Your task to perform on an android device: toggle location history Image 0: 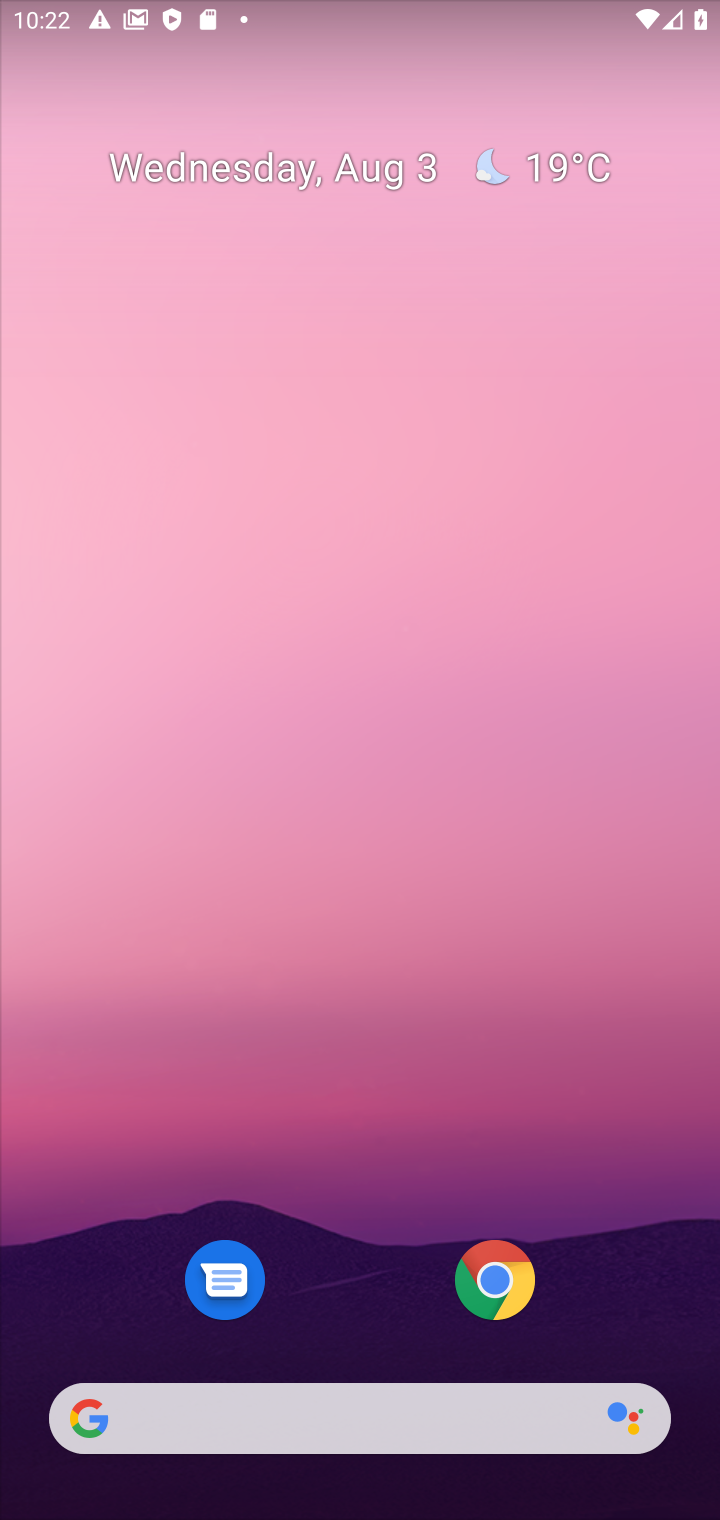
Step 0: drag from (442, 1197) to (424, 590)
Your task to perform on an android device: toggle location history Image 1: 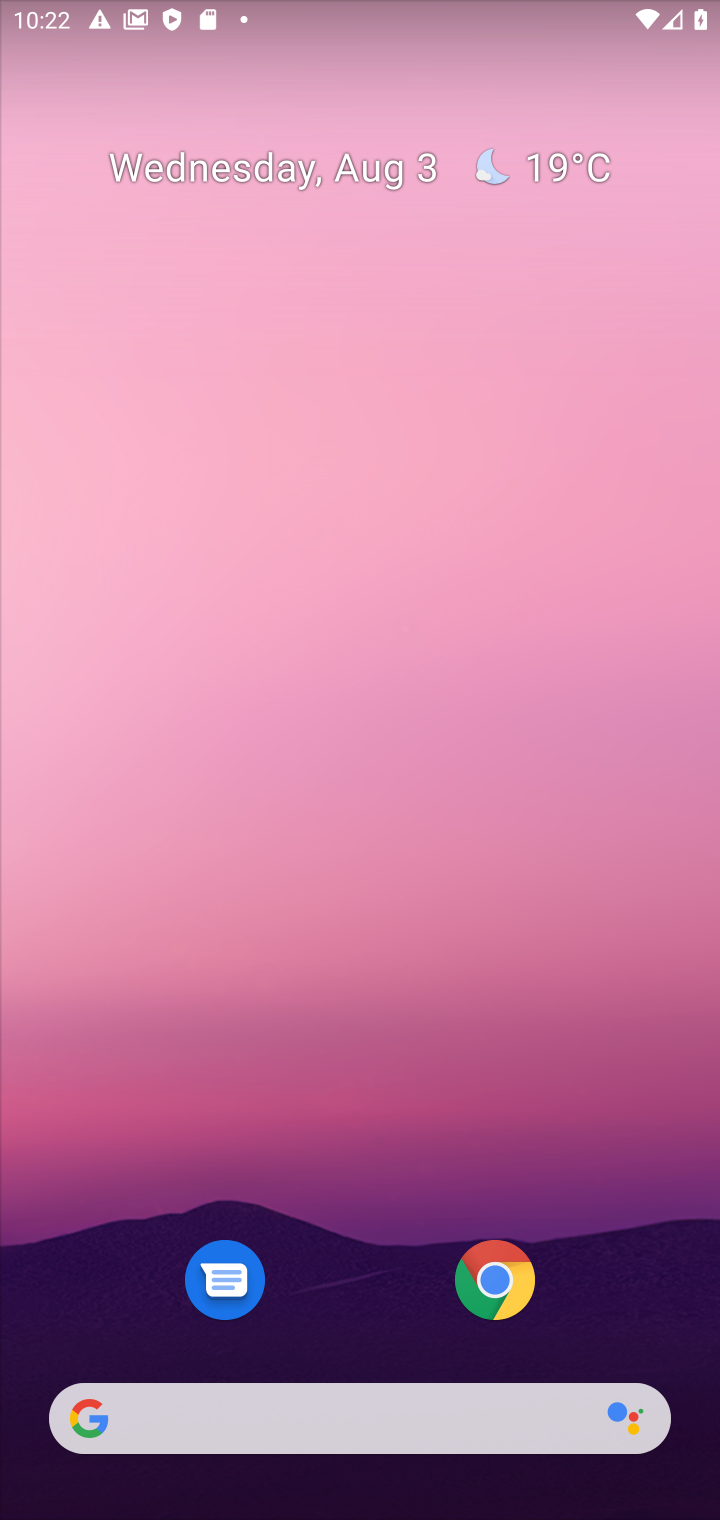
Step 1: drag from (382, 1214) to (309, 119)
Your task to perform on an android device: toggle location history Image 2: 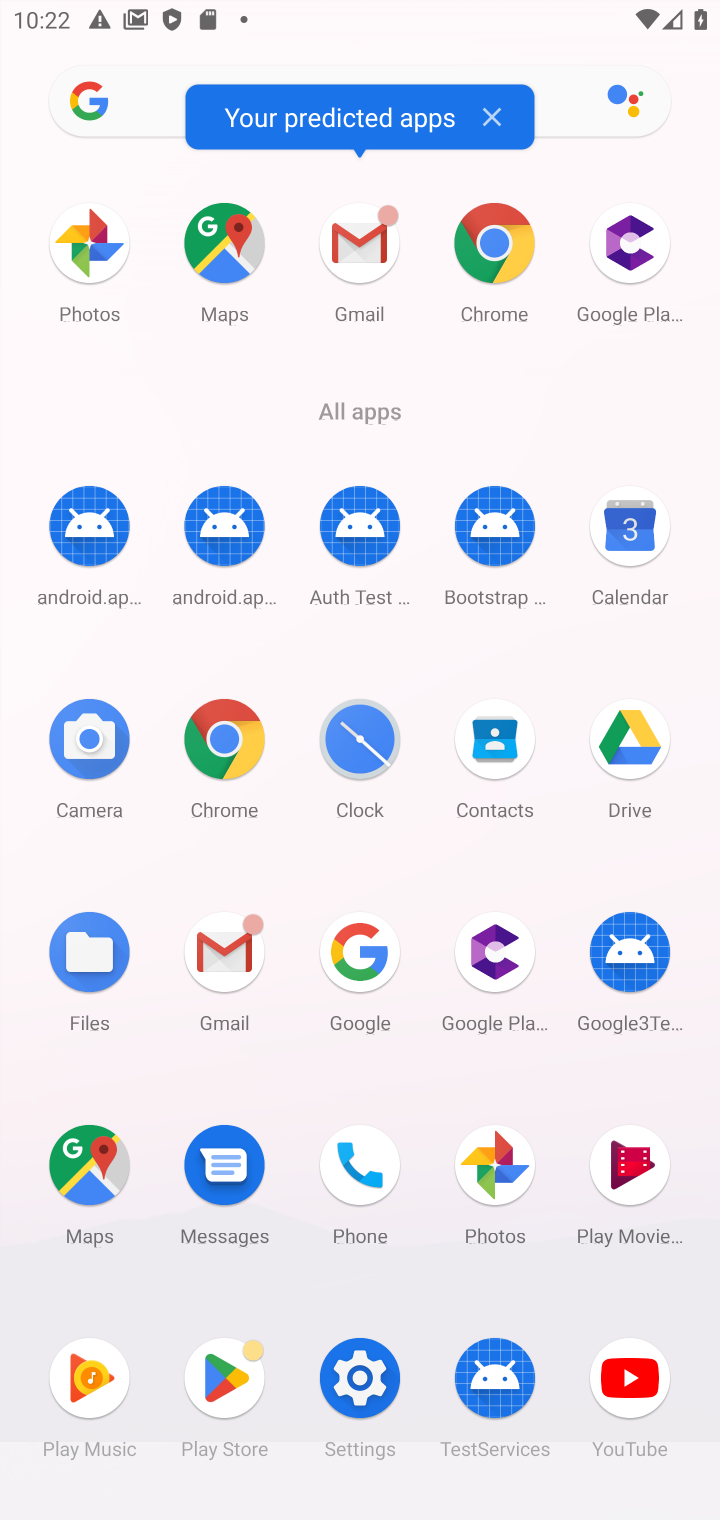
Step 2: click (371, 1365)
Your task to perform on an android device: toggle location history Image 3: 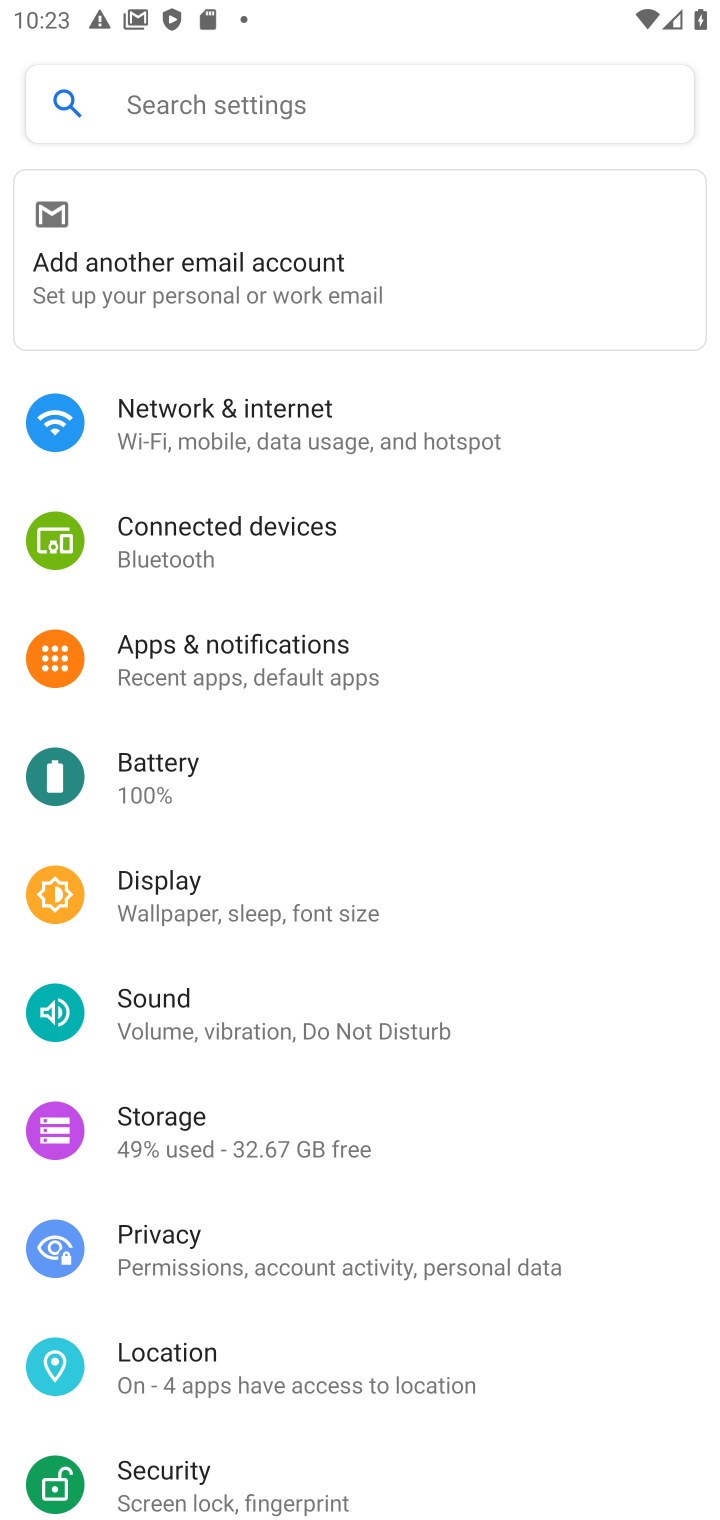
Step 3: click (184, 1356)
Your task to perform on an android device: toggle location history Image 4: 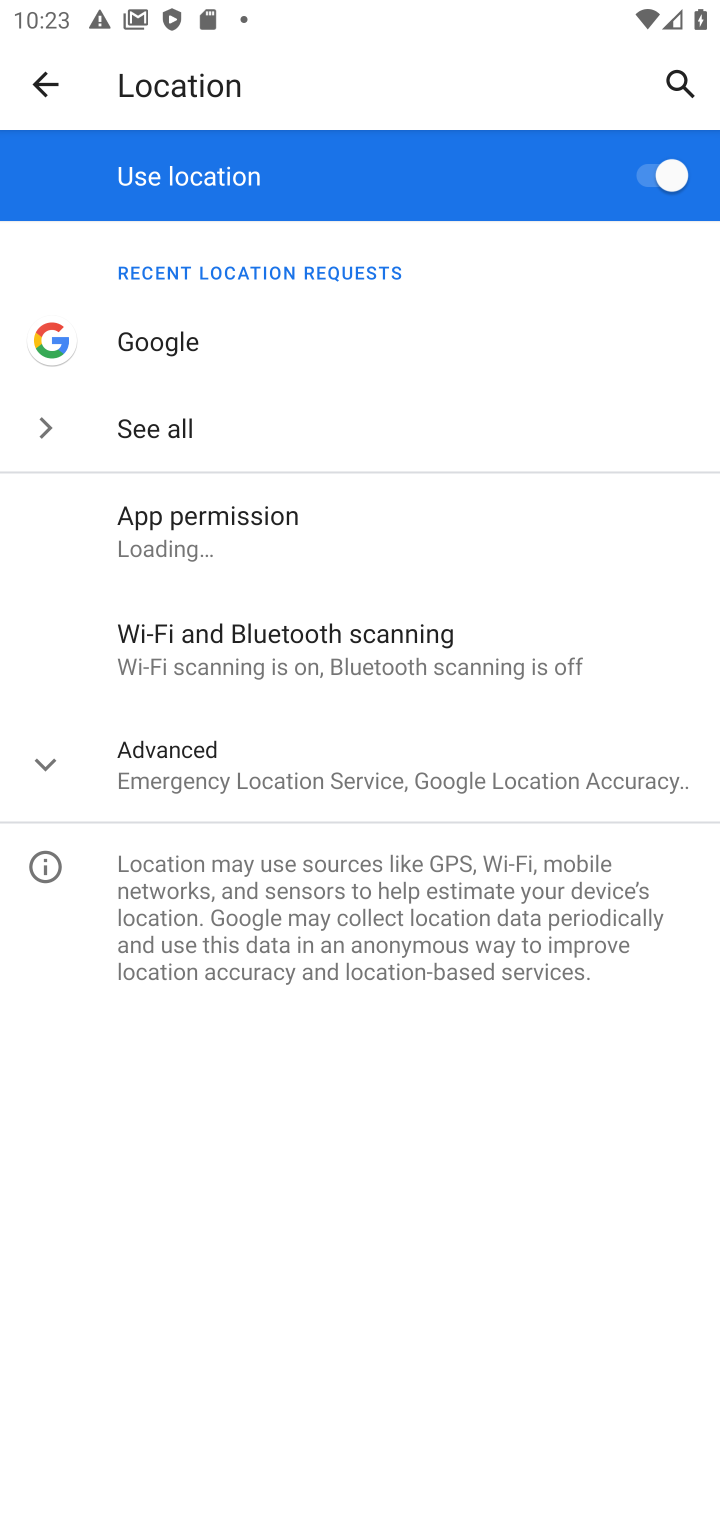
Step 4: task complete